Your task to perform on an android device: change notification settings in the gmail app Image 0: 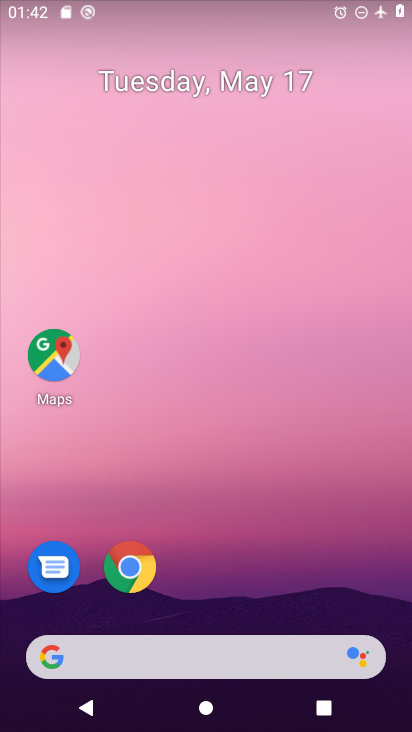
Step 0: drag from (270, 514) to (209, 103)
Your task to perform on an android device: change notification settings in the gmail app Image 1: 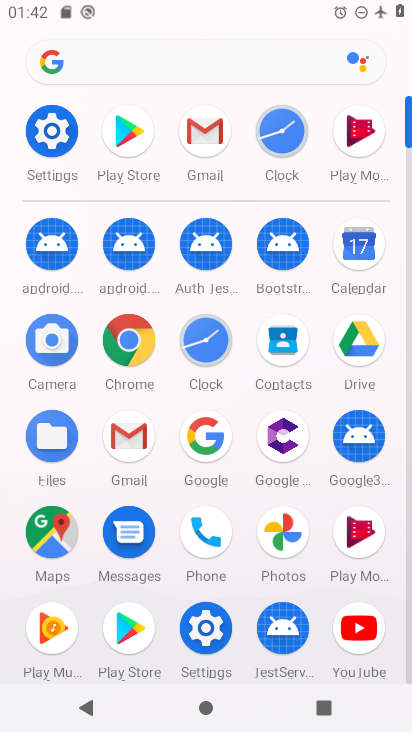
Step 1: click (188, 134)
Your task to perform on an android device: change notification settings in the gmail app Image 2: 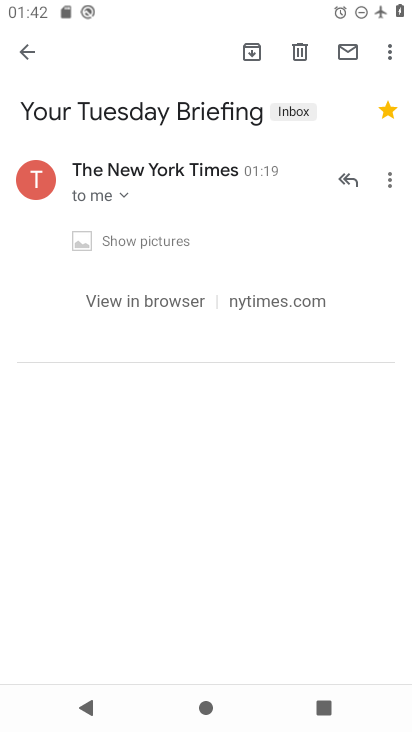
Step 2: click (31, 35)
Your task to perform on an android device: change notification settings in the gmail app Image 3: 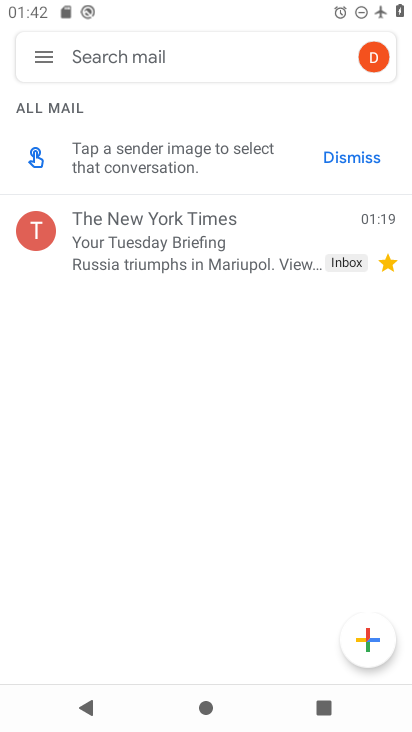
Step 3: click (36, 51)
Your task to perform on an android device: change notification settings in the gmail app Image 4: 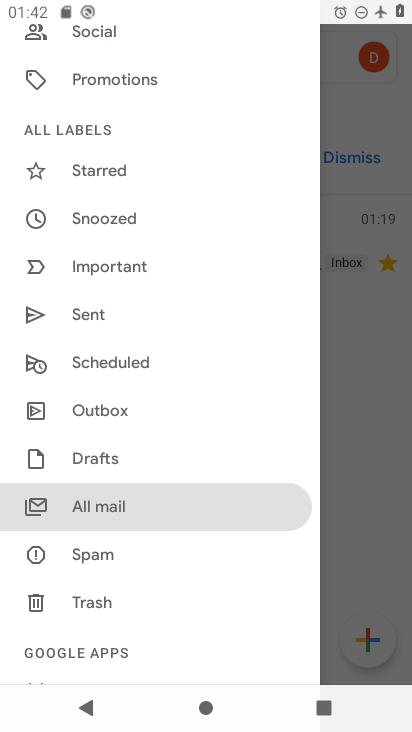
Step 4: drag from (142, 566) to (55, 195)
Your task to perform on an android device: change notification settings in the gmail app Image 5: 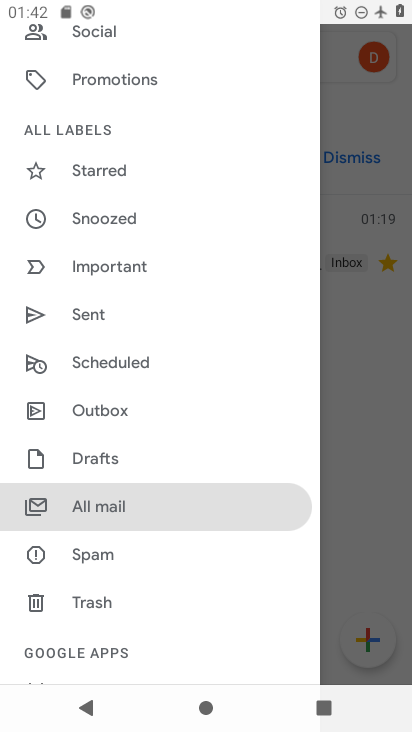
Step 5: drag from (117, 589) to (115, 373)
Your task to perform on an android device: change notification settings in the gmail app Image 6: 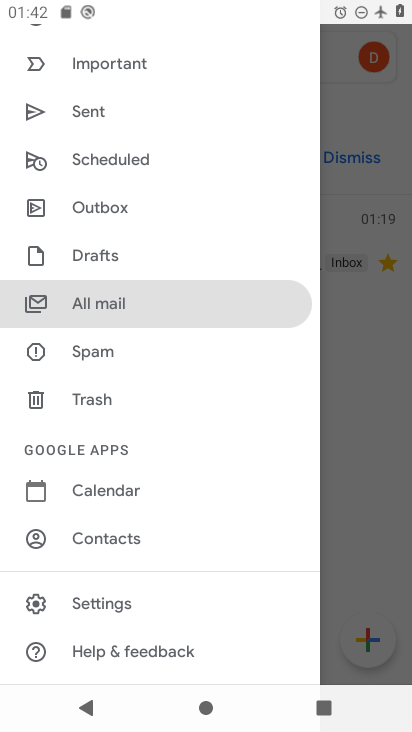
Step 6: click (92, 597)
Your task to perform on an android device: change notification settings in the gmail app Image 7: 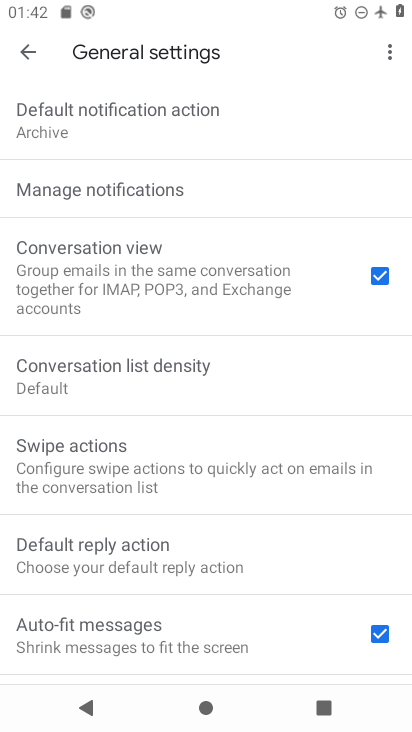
Step 7: click (80, 189)
Your task to perform on an android device: change notification settings in the gmail app Image 8: 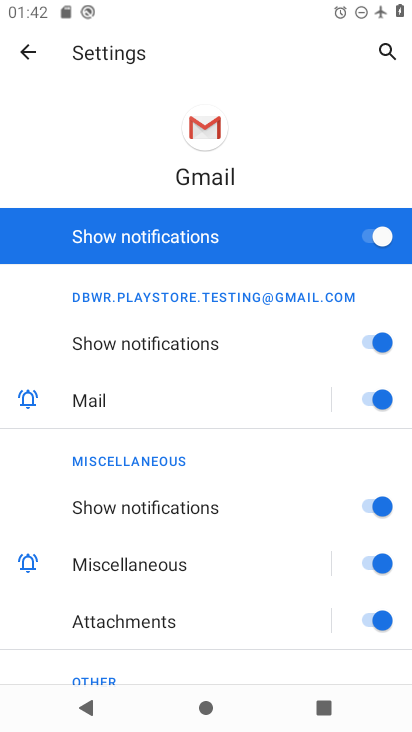
Step 8: click (390, 234)
Your task to perform on an android device: change notification settings in the gmail app Image 9: 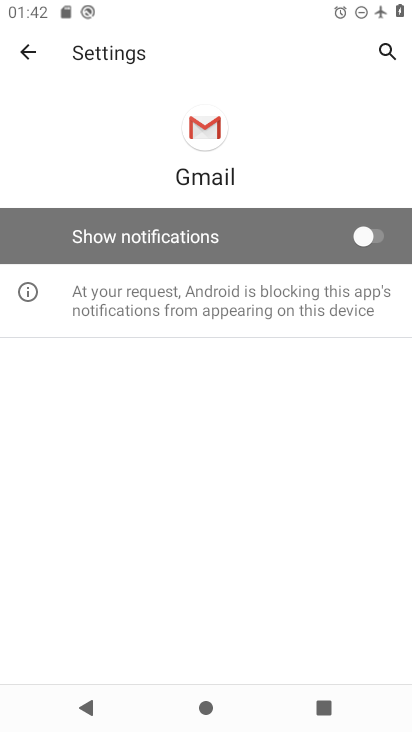
Step 9: task complete